Your task to perform on an android device: View the shopping cart on bestbuy.com. Search for razer kraken on bestbuy.com, select the first entry, and add it to the cart. Image 0: 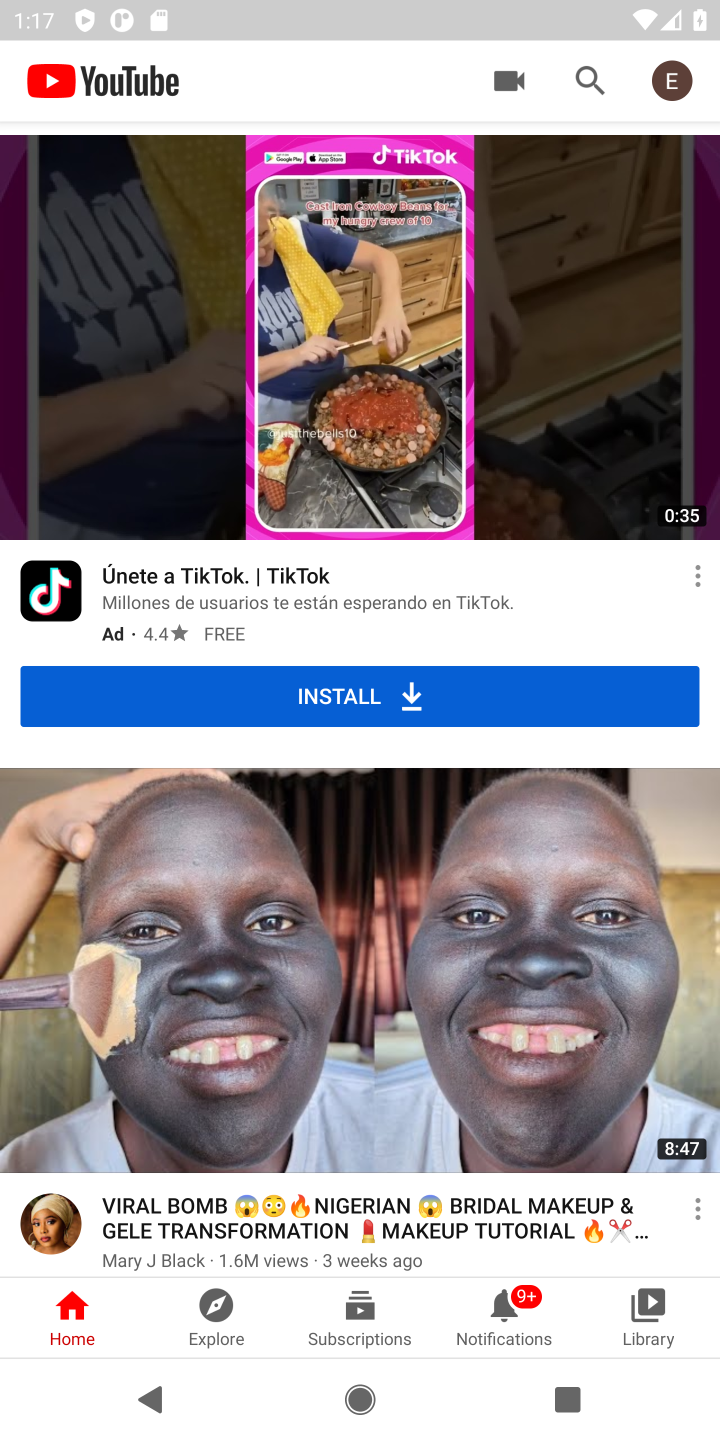
Step 0: press home button
Your task to perform on an android device: View the shopping cart on bestbuy.com. Search for razer kraken on bestbuy.com, select the first entry, and add it to the cart. Image 1: 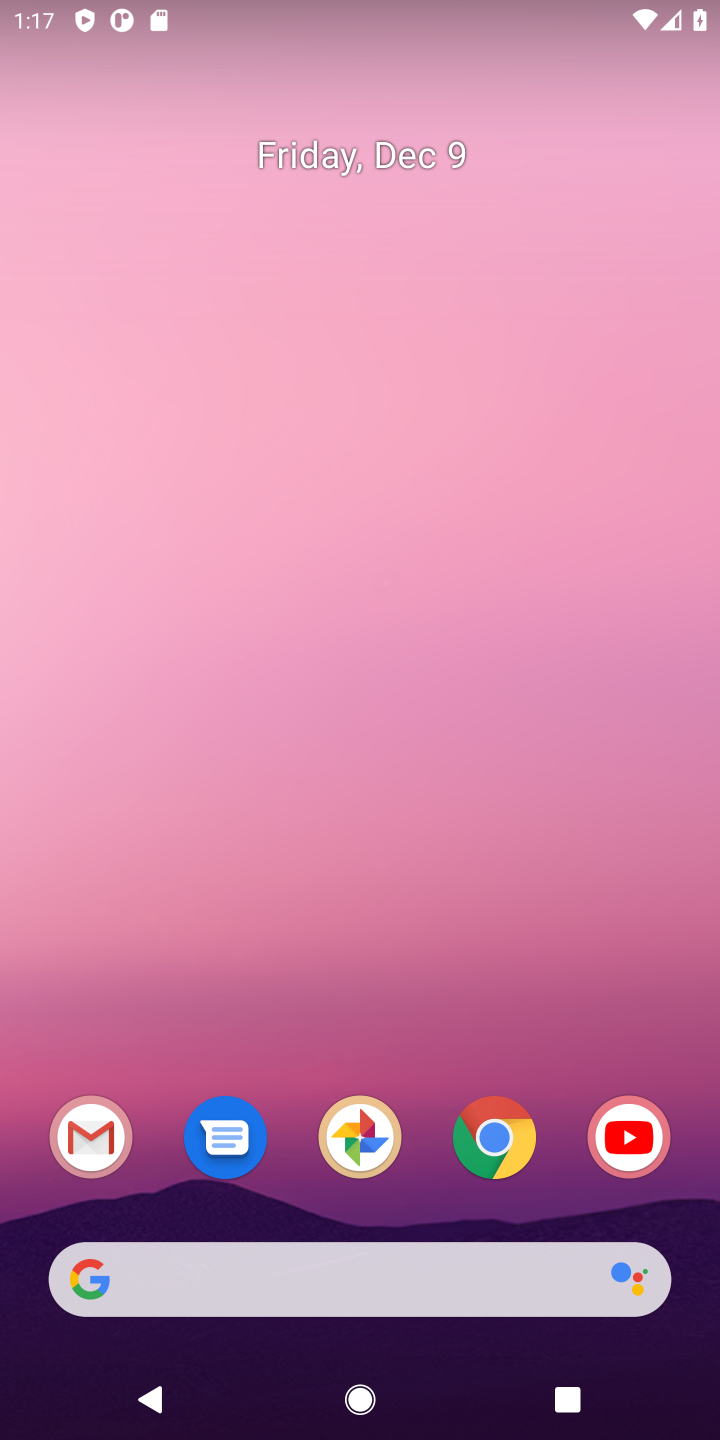
Step 1: click (492, 1150)
Your task to perform on an android device: View the shopping cart on bestbuy.com. Search for razer kraken on bestbuy.com, select the first entry, and add it to the cart. Image 2: 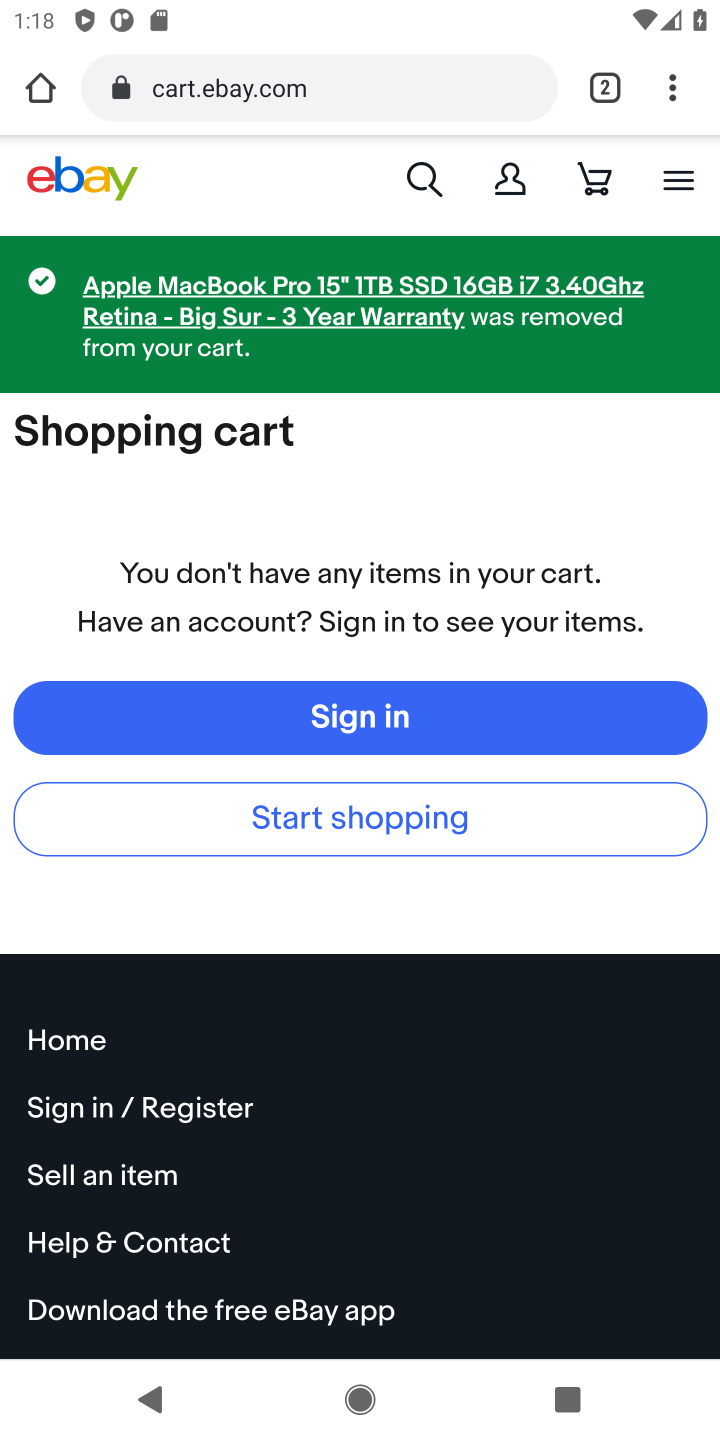
Step 2: click (281, 90)
Your task to perform on an android device: View the shopping cart on bestbuy.com. Search for razer kraken on bestbuy.com, select the first entry, and add it to the cart. Image 3: 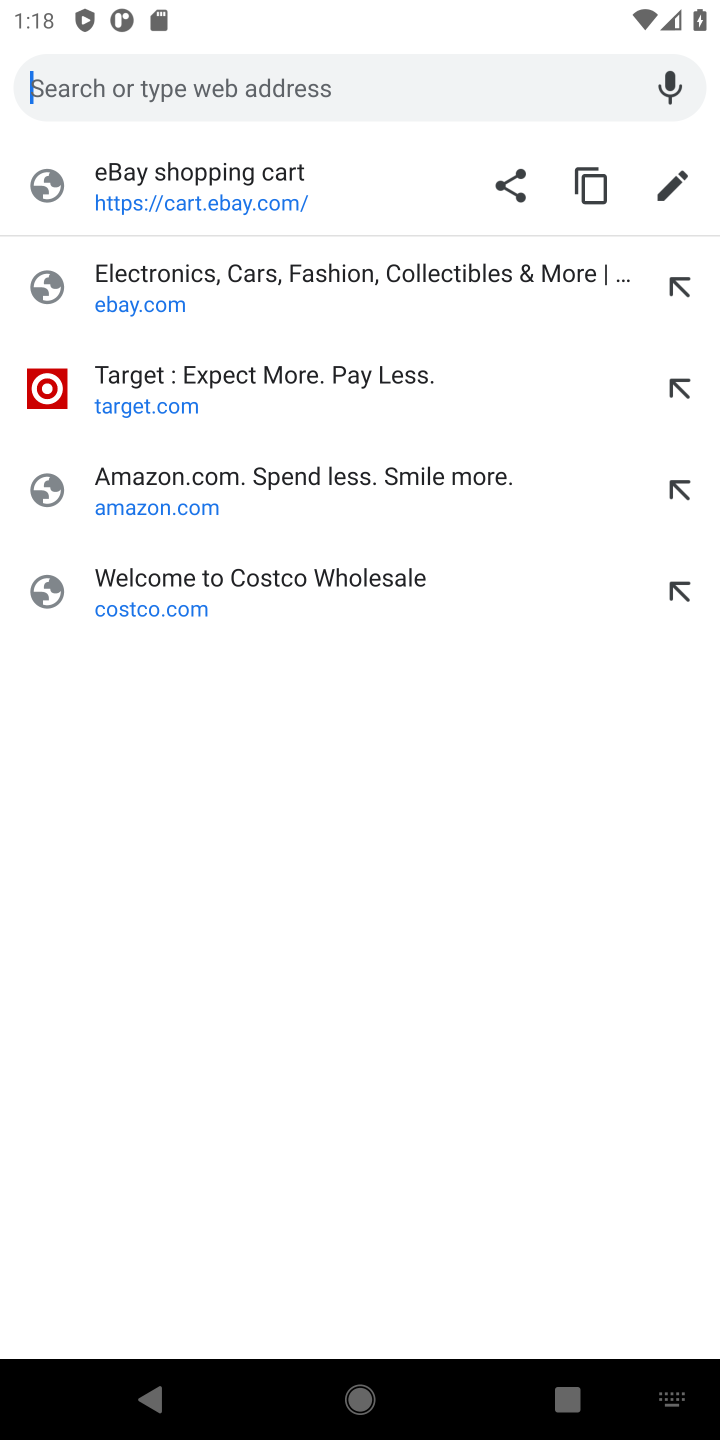
Step 3: type "BESTBUY"
Your task to perform on an android device: View the shopping cart on bestbuy.com. Search for razer kraken on bestbuy.com, select the first entry, and add it to the cart. Image 4: 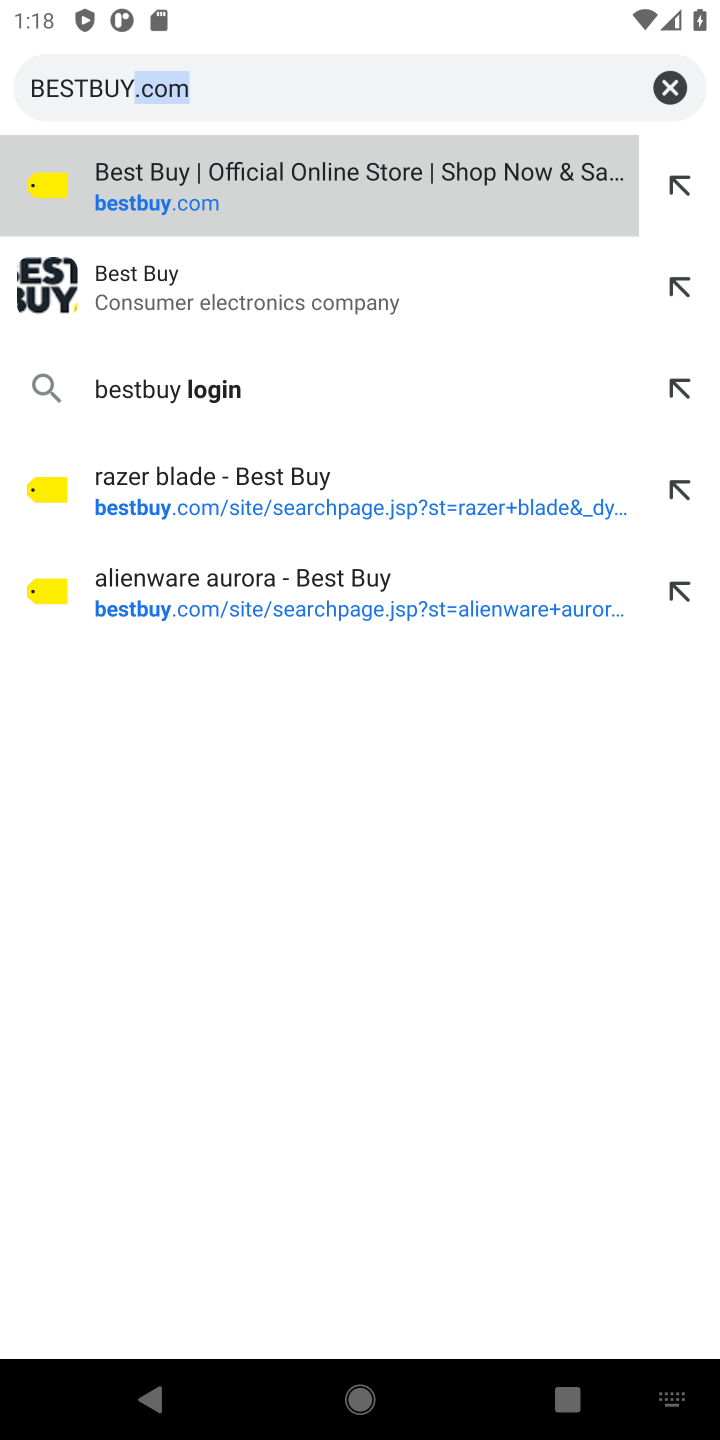
Step 4: click (456, 194)
Your task to perform on an android device: View the shopping cart on bestbuy.com. Search for razer kraken on bestbuy.com, select the first entry, and add it to the cart. Image 5: 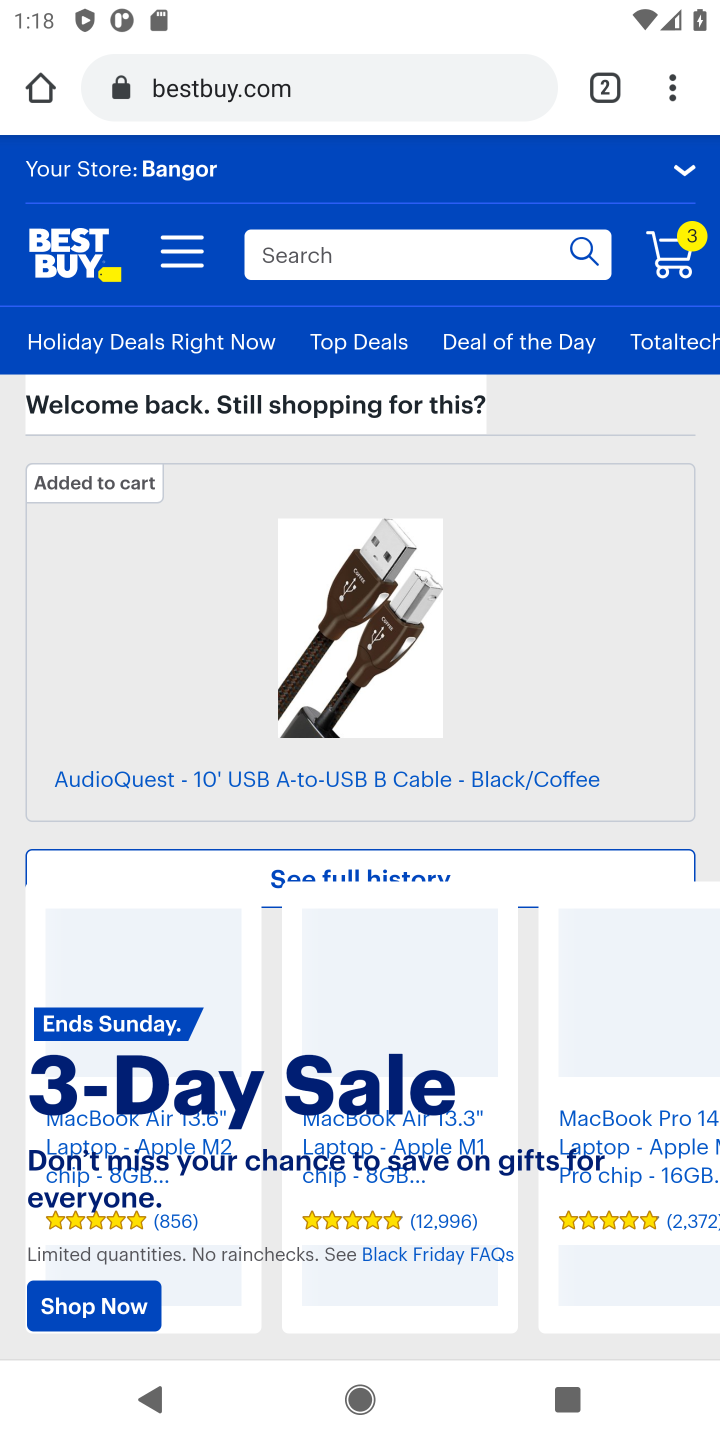
Step 5: click (517, 246)
Your task to perform on an android device: View the shopping cart on bestbuy.com. Search for razer kraken on bestbuy.com, select the first entry, and add it to the cart. Image 6: 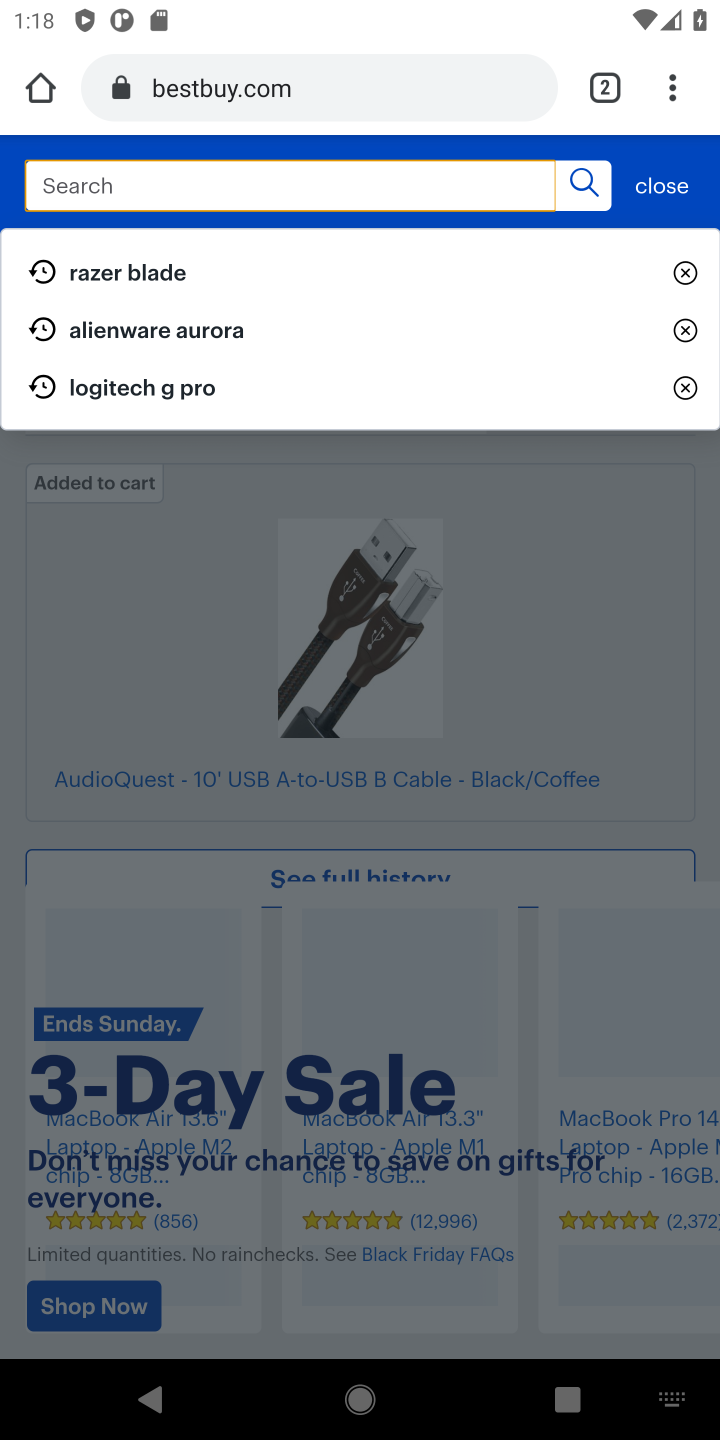
Step 6: type "RAZER KRAKEN"
Your task to perform on an android device: View the shopping cart on bestbuy.com. Search for razer kraken on bestbuy.com, select the first entry, and add it to the cart. Image 7: 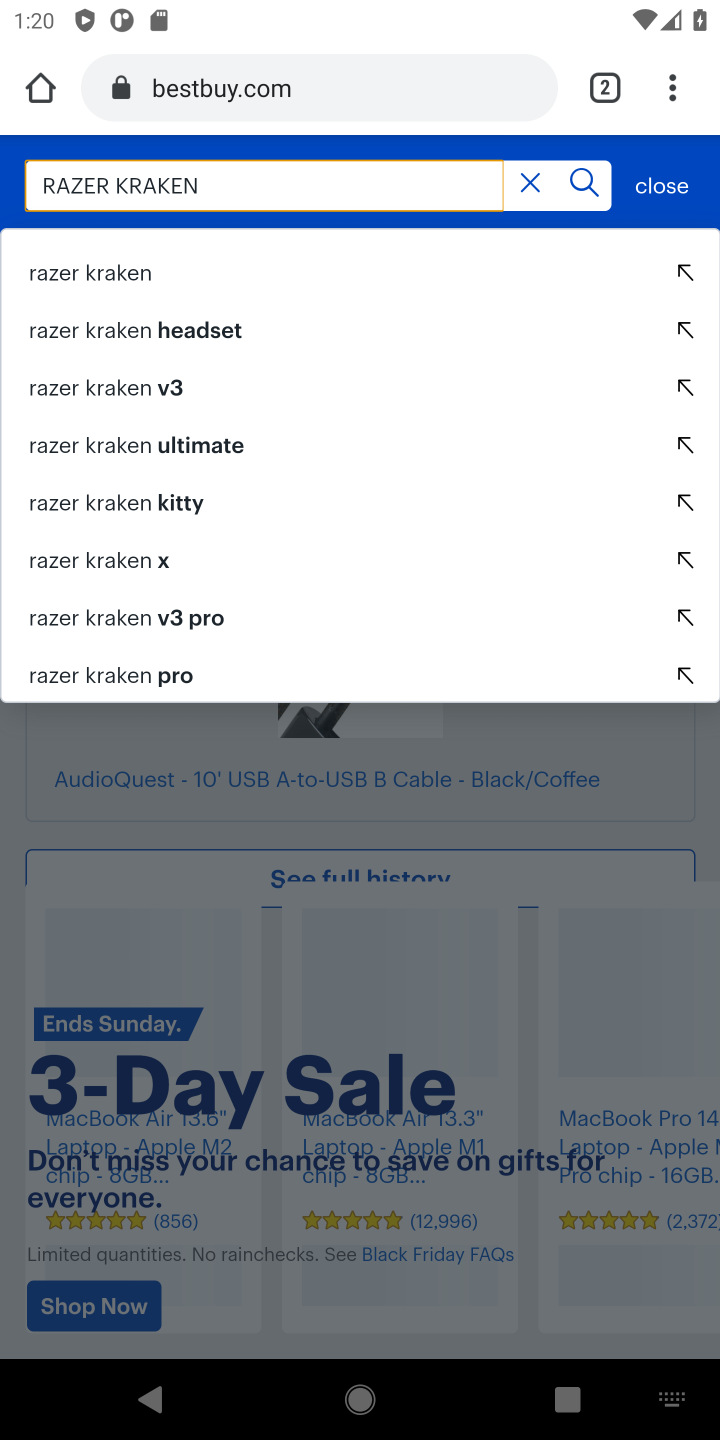
Step 7: click (193, 272)
Your task to perform on an android device: View the shopping cart on bestbuy.com. Search for razer kraken on bestbuy.com, select the first entry, and add it to the cart. Image 8: 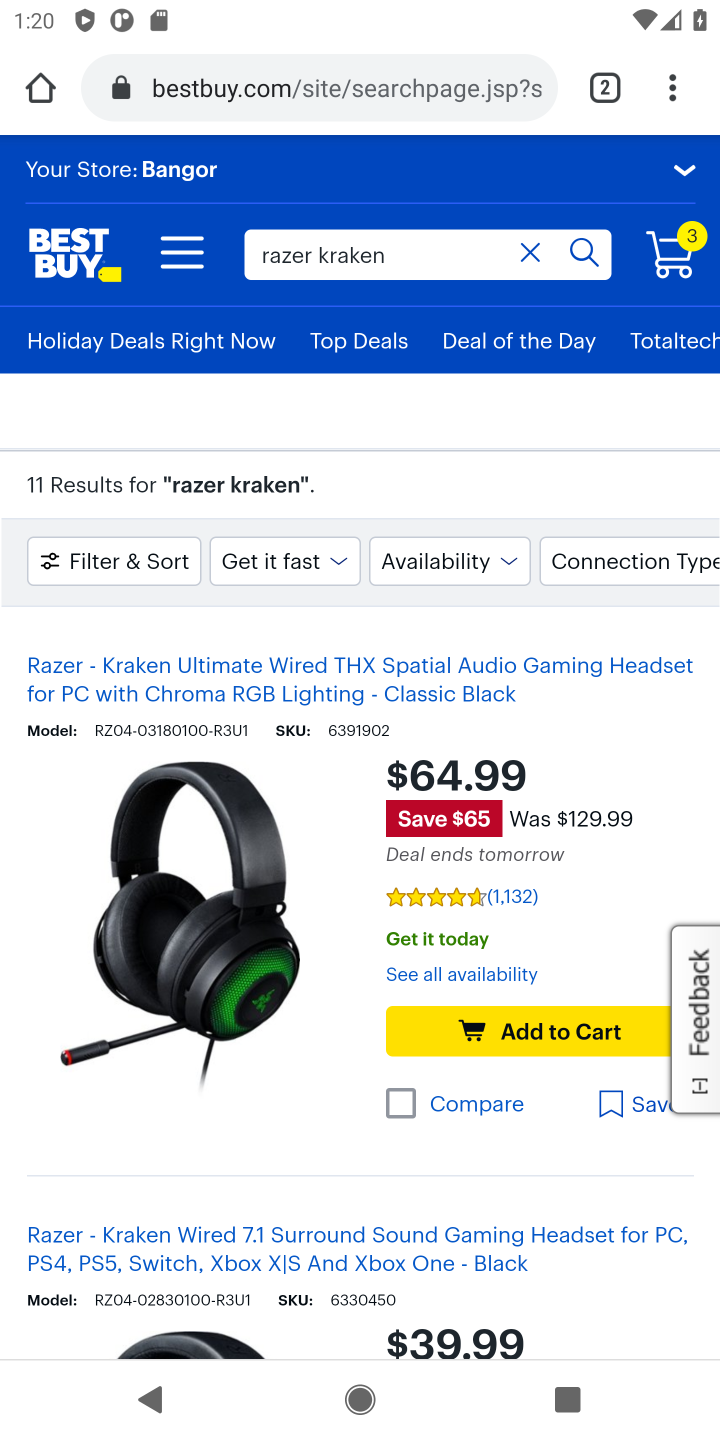
Step 8: click (520, 1029)
Your task to perform on an android device: View the shopping cart on bestbuy.com. Search for razer kraken on bestbuy.com, select the first entry, and add it to the cart. Image 9: 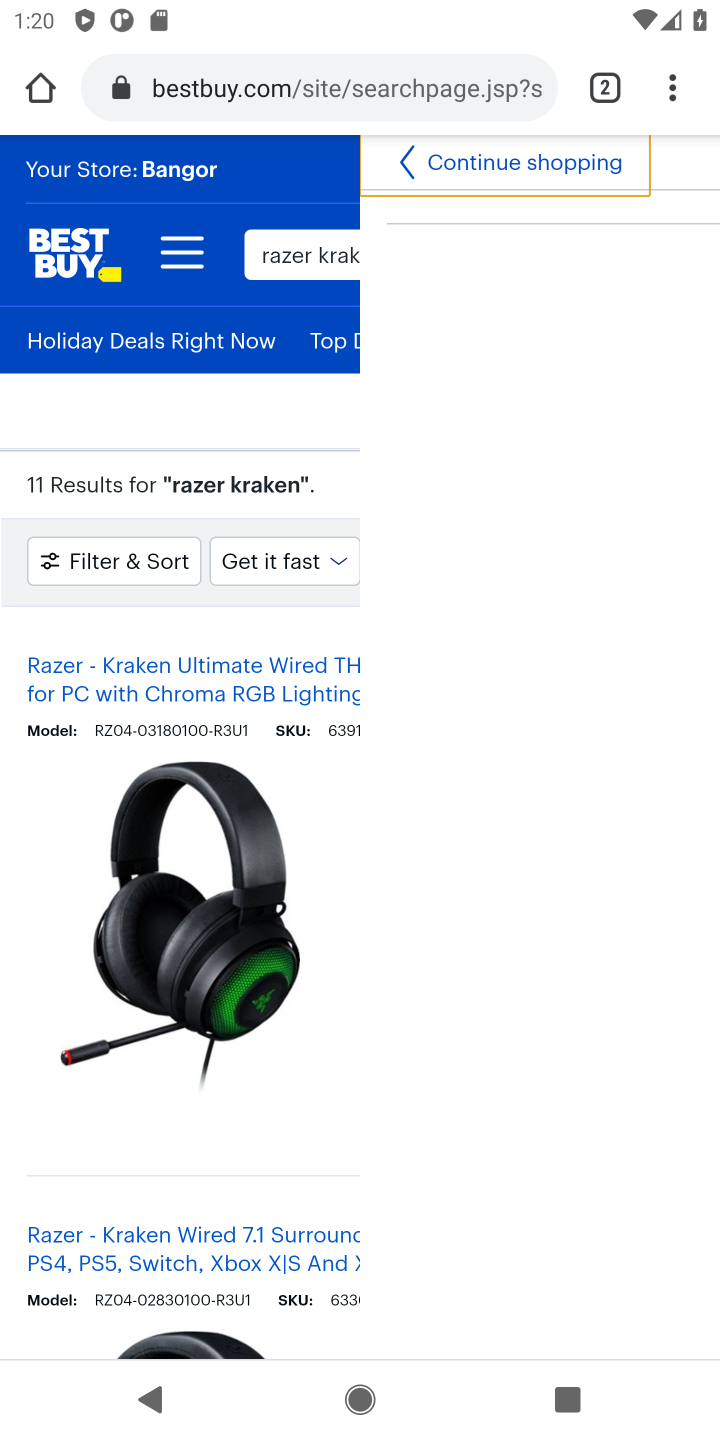
Step 9: task complete